Your task to perform on an android device: change the clock display to show seconds Image 0: 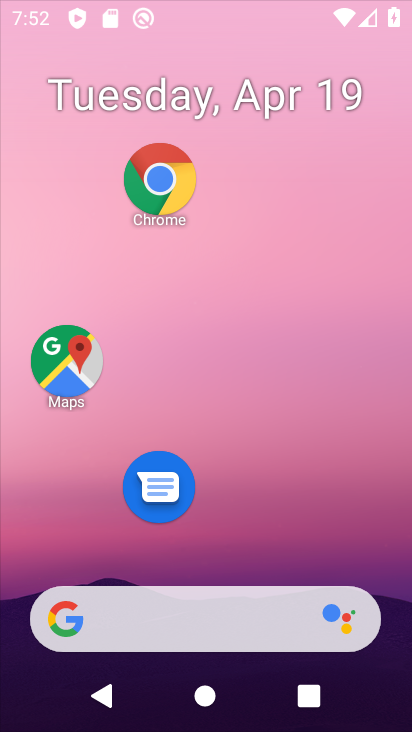
Step 0: click (267, 121)
Your task to perform on an android device: change the clock display to show seconds Image 1: 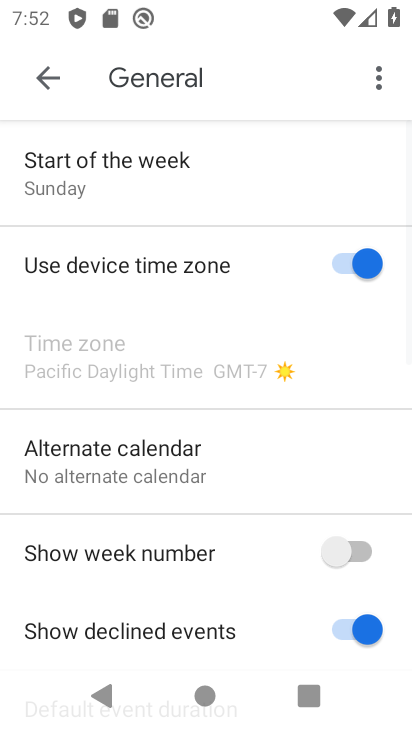
Step 1: click (37, 84)
Your task to perform on an android device: change the clock display to show seconds Image 2: 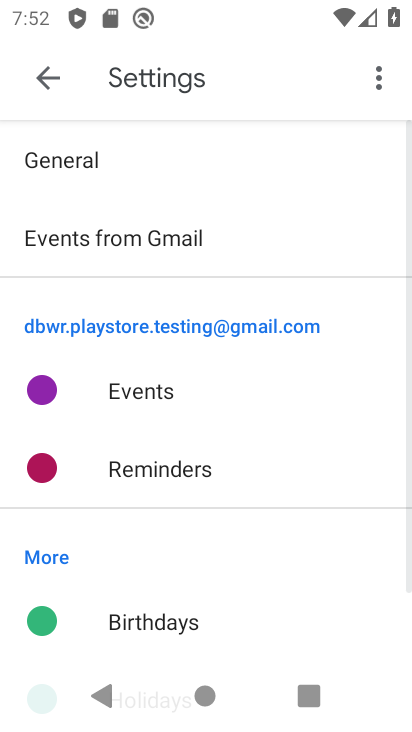
Step 2: click (37, 83)
Your task to perform on an android device: change the clock display to show seconds Image 3: 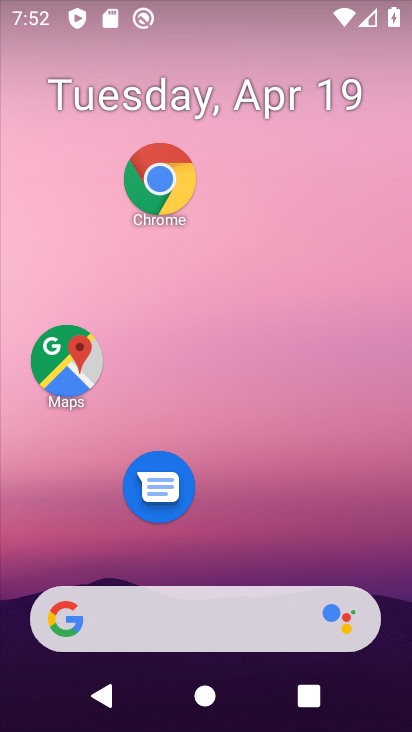
Step 3: click (42, 85)
Your task to perform on an android device: change the clock display to show seconds Image 4: 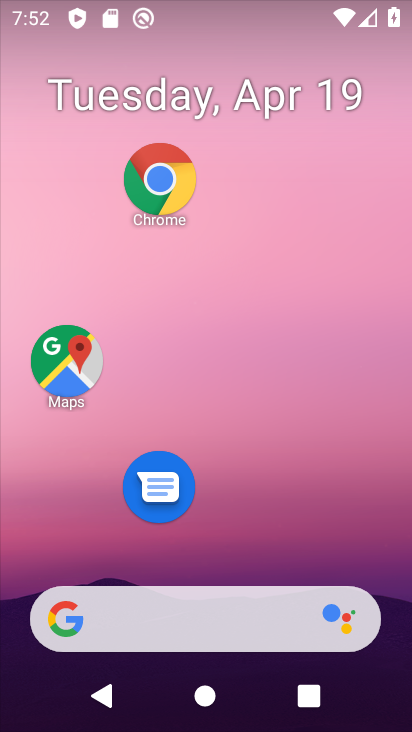
Step 4: click (150, 180)
Your task to perform on an android device: change the clock display to show seconds Image 5: 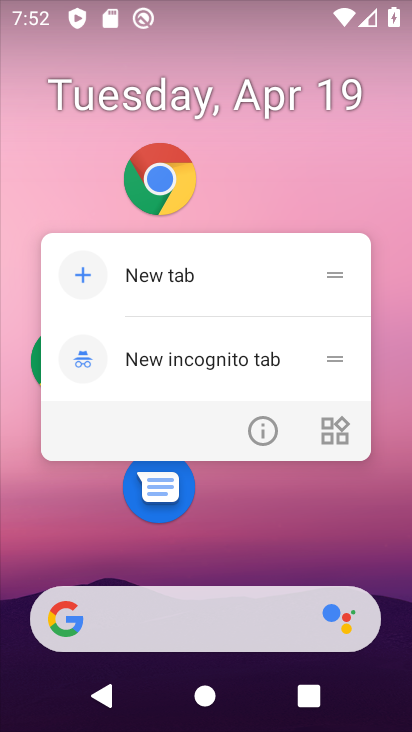
Step 5: click (309, 483)
Your task to perform on an android device: change the clock display to show seconds Image 6: 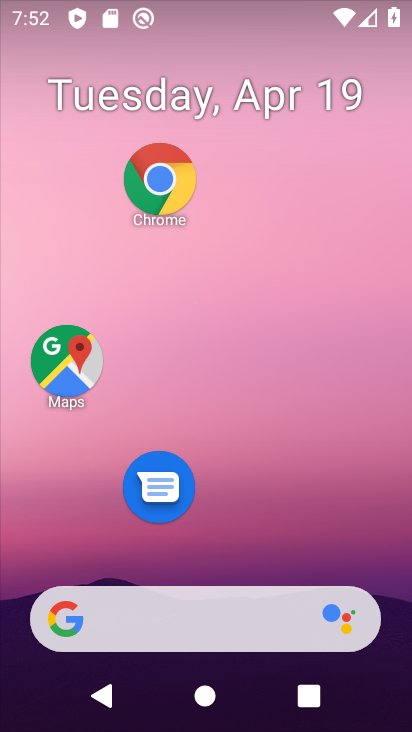
Step 6: drag from (257, 624) to (221, 157)
Your task to perform on an android device: change the clock display to show seconds Image 7: 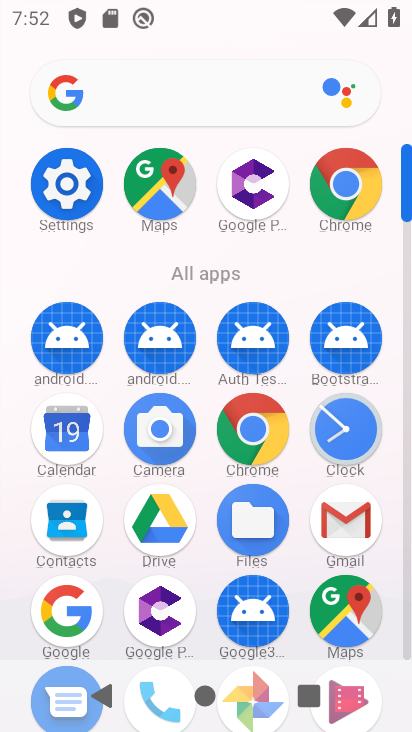
Step 7: click (344, 422)
Your task to perform on an android device: change the clock display to show seconds Image 8: 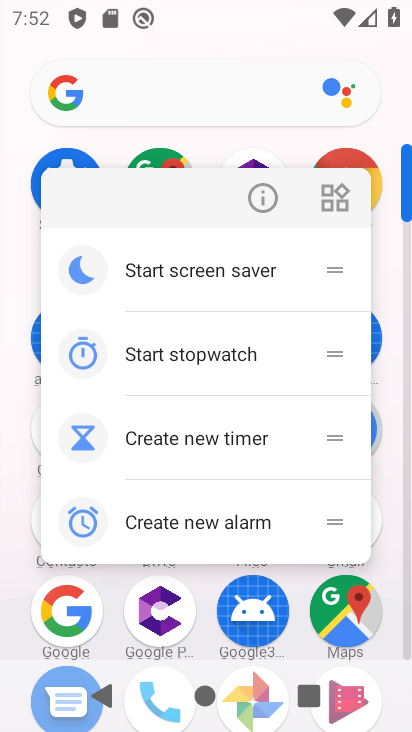
Step 8: click (397, 501)
Your task to perform on an android device: change the clock display to show seconds Image 9: 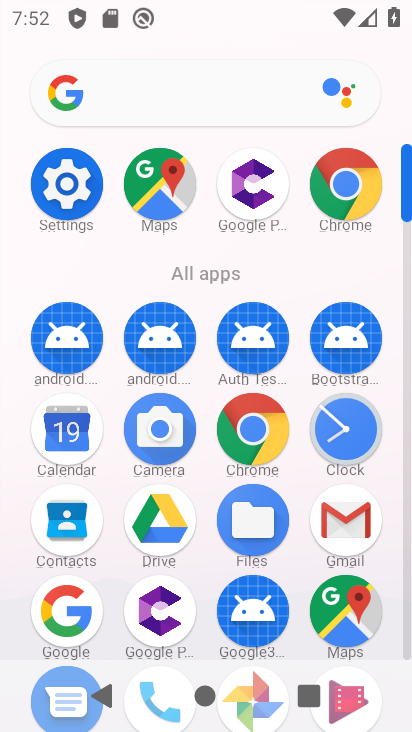
Step 9: click (359, 431)
Your task to perform on an android device: change the clock display to show seconds Image 10: 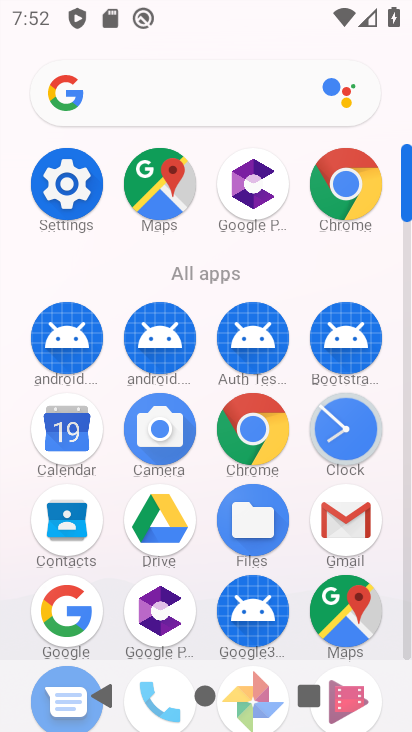
Step 10: click (359, 431)
Your task to perform on an android device: change the clock display to show seconds Image 11: 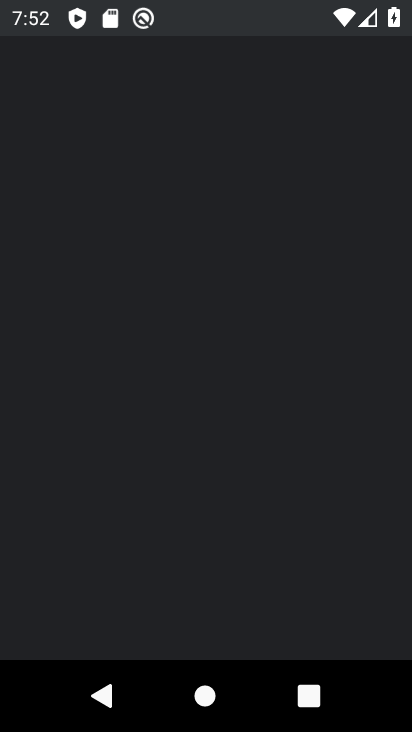
Step 11: click (358, 430)
Your task to perform on an android device: change the clock display to show seconds Image 12: 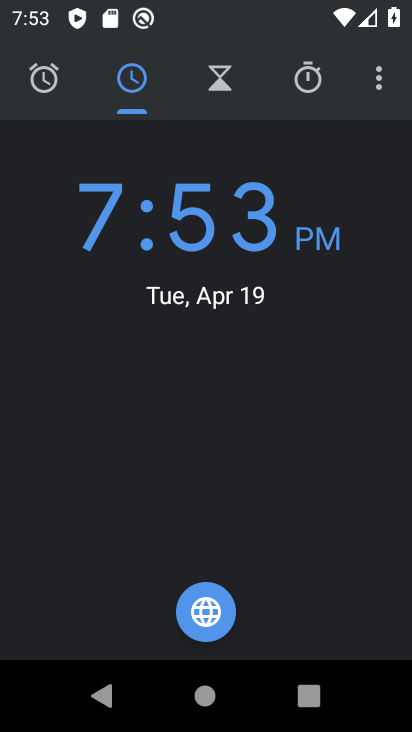
Step 12: click (380, 76)
Your task to perform on an android device: change the clock display to show seconds Image 13: 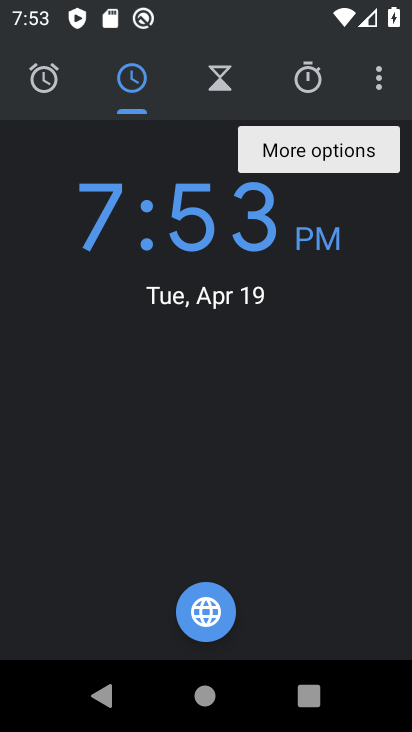
Step 13: click (380, 76)
Your task to perform on an android device: change the clock display to show seconds Image 14: 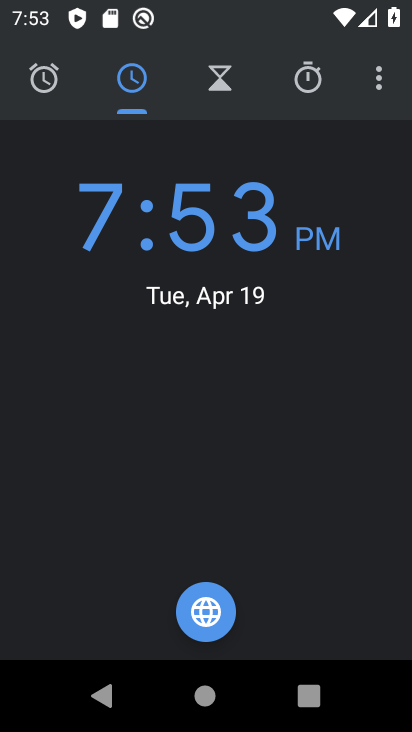
Step 14: click (375, 82)
Your task to perform on an android device: change the clock display to show seconds Image 15: 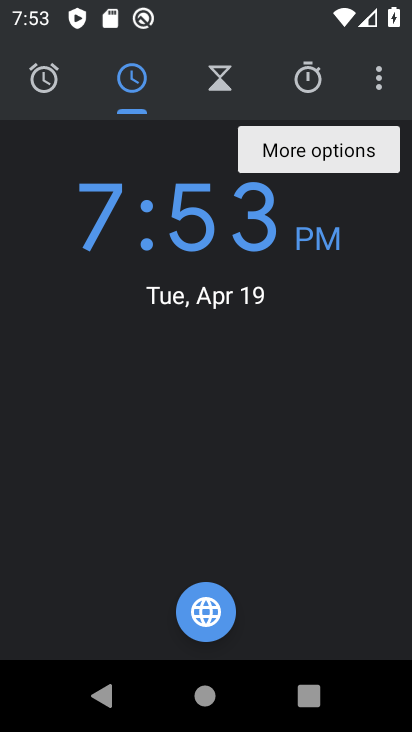
Step 15: click (377, 81)
Your task to perform on an android device: change the clock display to show seconds Image 16: 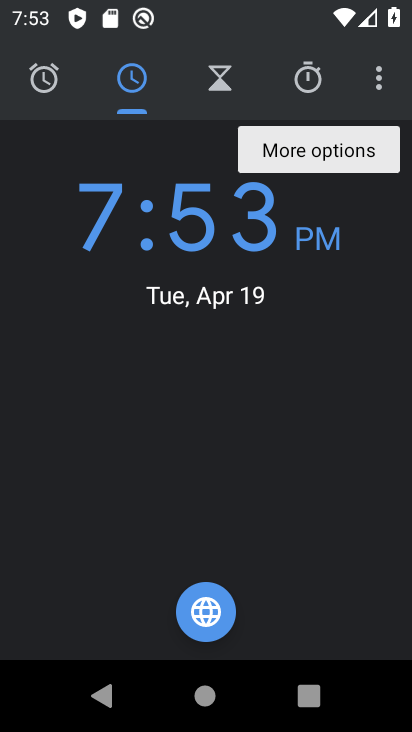
Step 16: click (379, 81)
Your task to perform on an android device: change the clock display to show seconds Image 17: 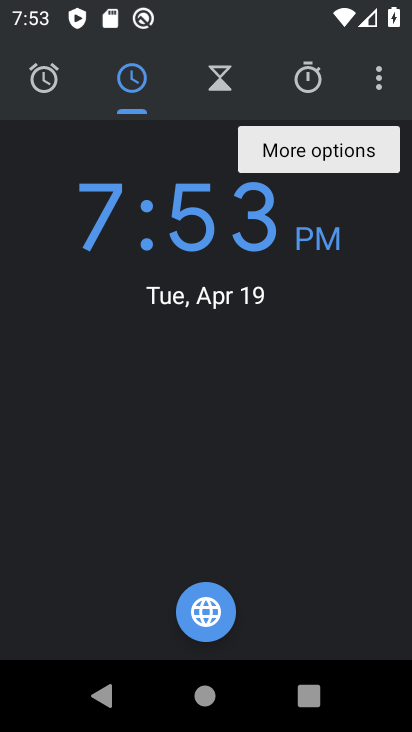
Step 17: click (380, 82)
Your task to perform on an android device: change the clock display to show seconds Image 18: 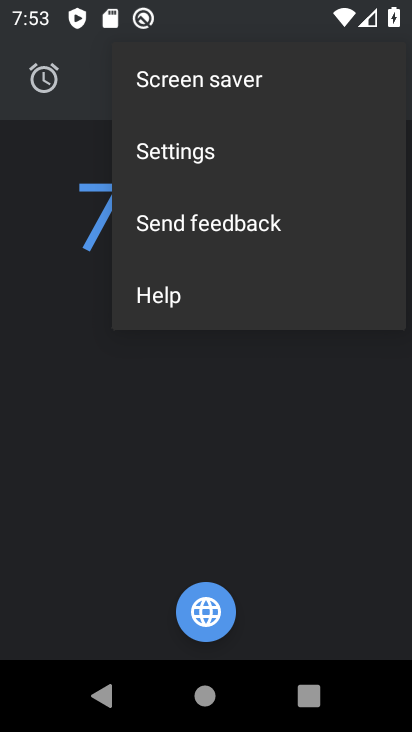
Step 18: click (364, 77)
Your task to perform on an android device: change the clock display to show seconds Image 19: 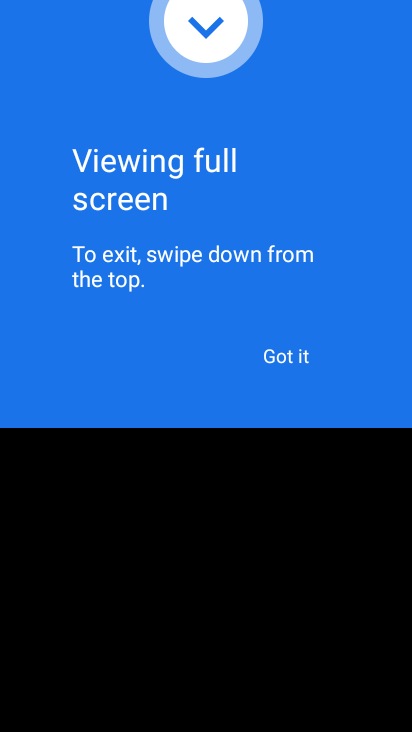
Step 19: click (293, 349)
Your task to perform on an android device: change the clock display to show seconds Image 20: 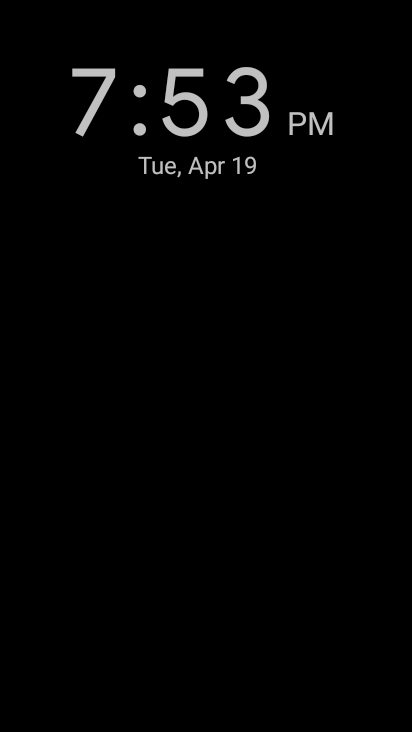
Step 20: click (290, 344)
Your task to perform on an android device: change the clock display to show seconds Image 21: 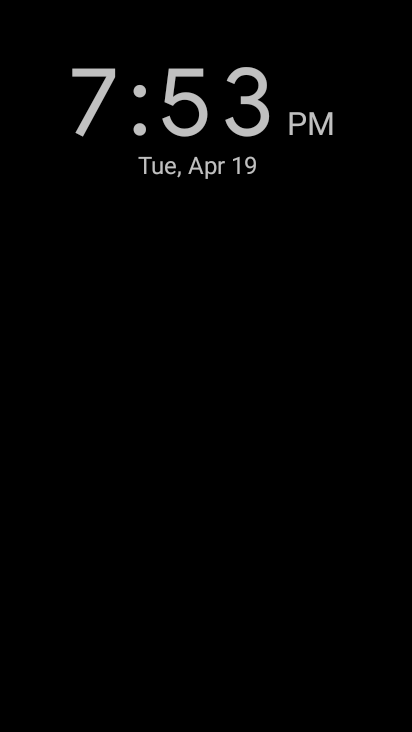
Step 21: click (287, 343)
Your task to perform on an android device: change the clock display to show seconds Image 22: 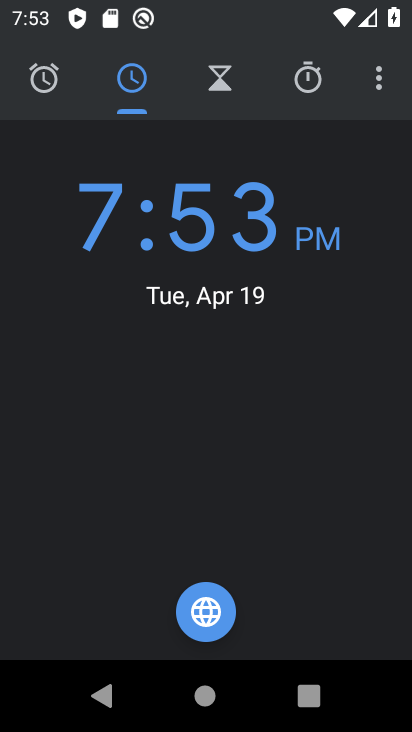
Step 22: click (380, 80)
Your task to perform on an android device: change the clock display to show seconds Image 23: 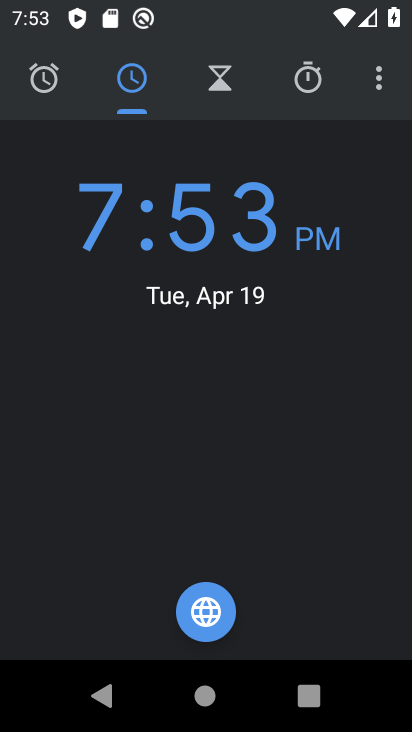
Step 23: click (371, 79)
Your task to perform on an android device: change the clock display to show seconds Image 24: 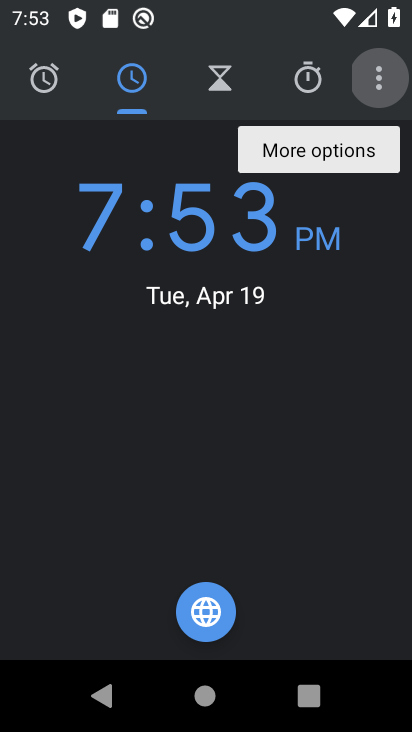
Step 24: click (377, 58)
Your task to perform on an android device: change the clock display to show seconds Image 25: 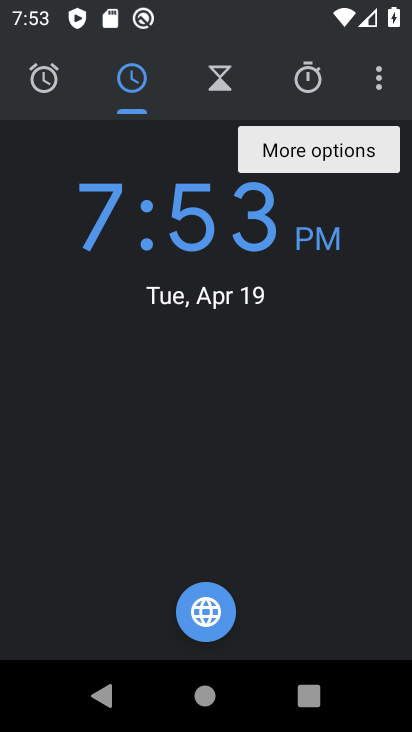
Step 25: click (340, 147)
Your task to perform on an android device: change the clock display to show seconds Image 26: 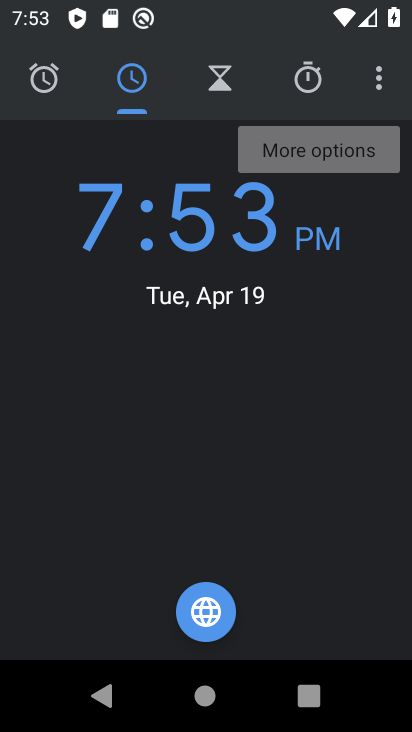
Step 26: click (335, 129)
Your task to perform on an android device: change the clock display to show seconds Image 27: 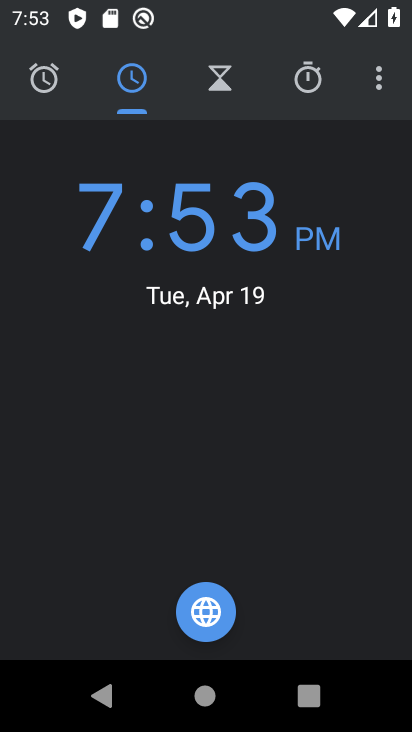
Step 27: click (382, 81)
Your task to perform on an android device: change the clock display to show seconds Image 28: 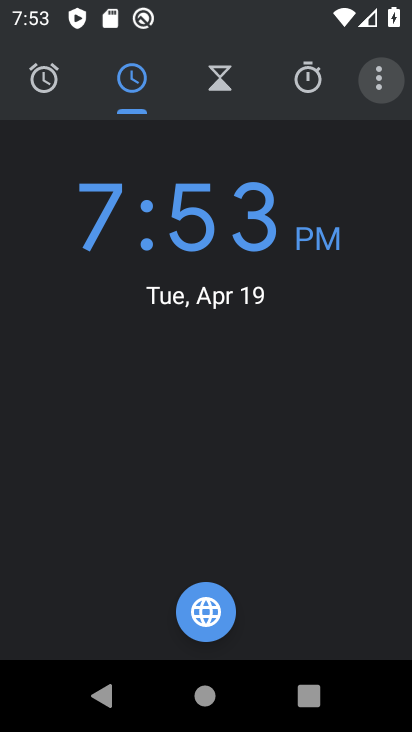
Step 28: click (380, 77)
Your task to perform on an android device: change the clock display to show seconds Image 29: 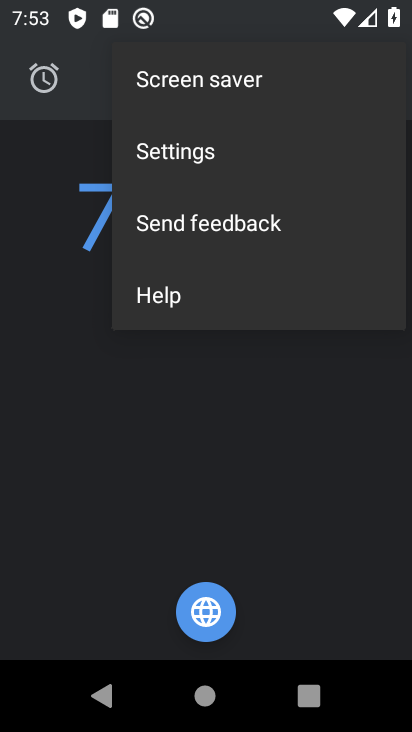
Step 29: click (196, 142)
Your task to perform on an android device: change the clock display to show seconds Image 30: 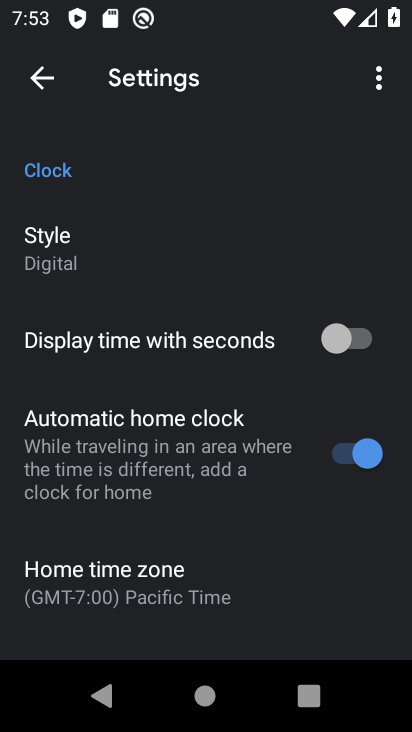
Step 30: click (340, 327)
Your task to perform on an android device: change the clock display to show seconds Image 31: 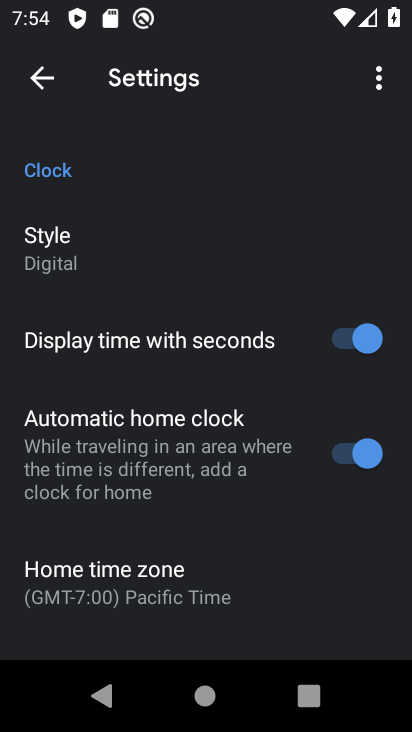
Step 31: press home button
Your task to perform on an android device: change the clock display to show seconds Image 32: 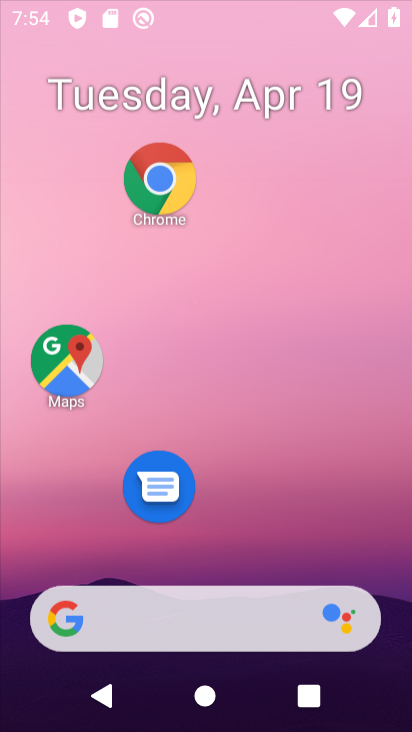
Step 32: press home button
Your task to perform on an android device: change the clock display to show seconds Image 33: 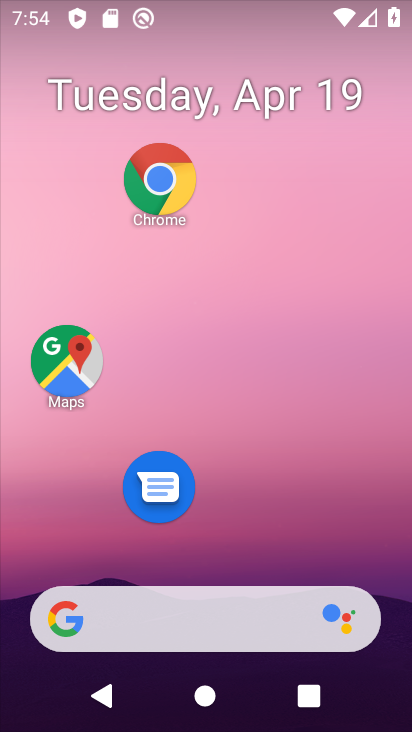
Step 33: drag from (249, 640) to (174, 54)
Your task to perform on an android device: change the clock display to show seconds Image 34: 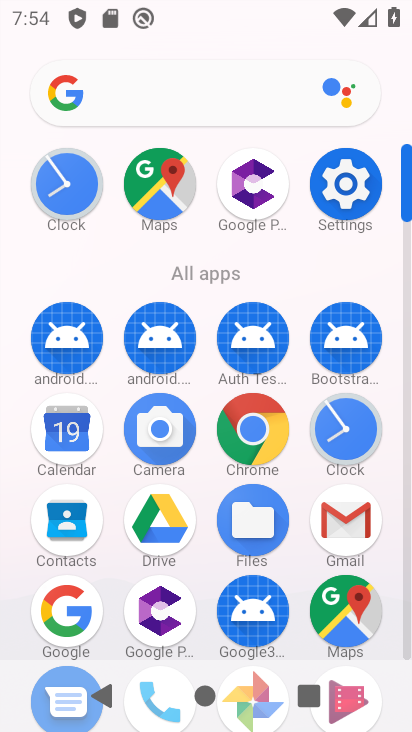
Step 34: click (341, 413)
Your task to perform on an android device: change the clock display to show seconds Image 35: 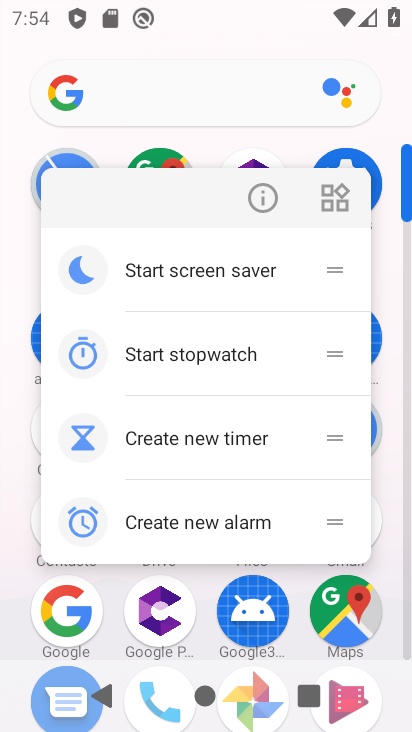
Step 35: click (379, 278)
Your task to perform on an android device: change the clock display to show seconds Image 36: 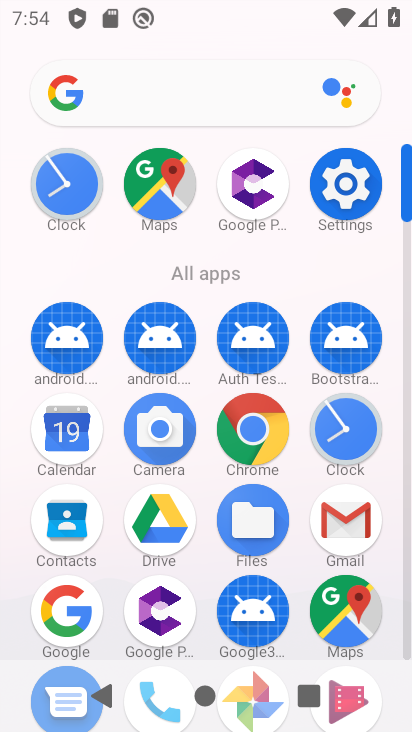
Step 36: click (332, 433)
Your task to perform on an android device: change the clock display to show seconds Image 37: 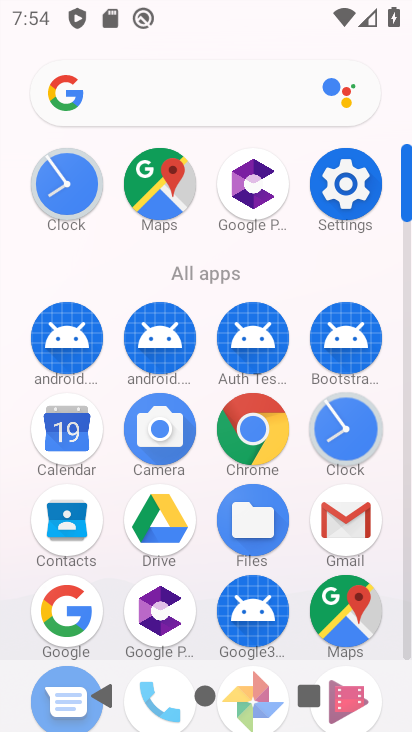
Step 37: click (332, 433)
Your task to perform on an android device: change the clock display to show seconds Image 38: 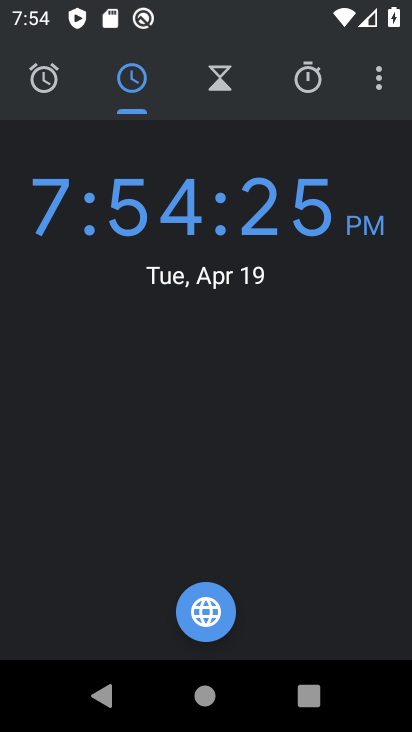
Step 38: click (383, 75)
Your task to perform on an android device: change the clock display to show seconds Image 39: 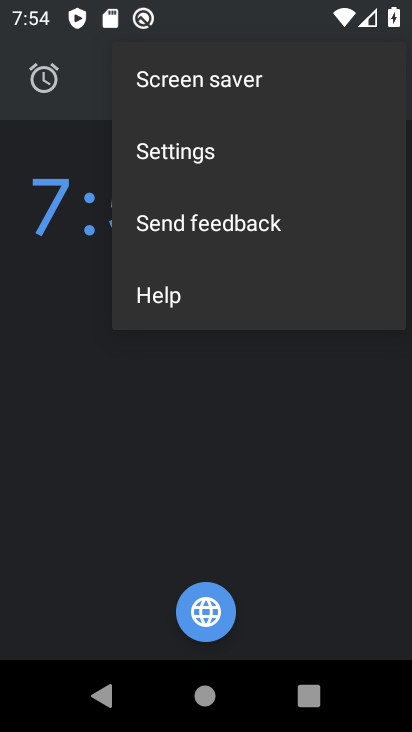
Step 39: click (171, 151)
Your task to perform on an android device: change the clock display to show seconds Image 40: 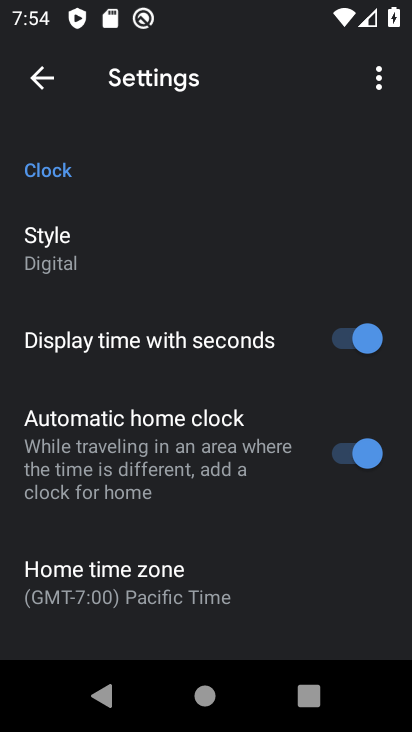
Step 40: task complete